Your task to perform on an android device: change the clock style Image 0: 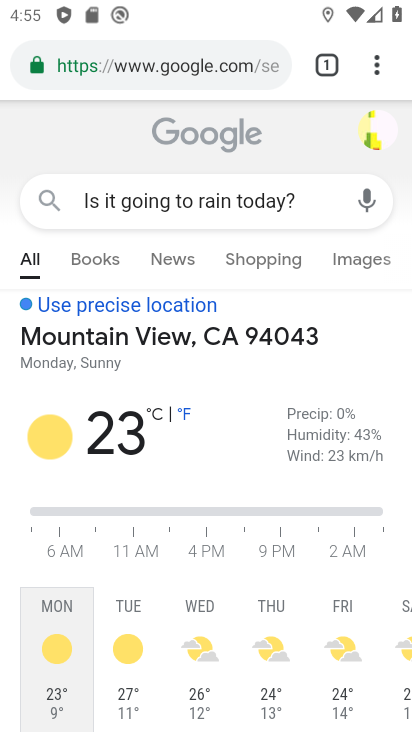
Step 0: press home button
Your task to perform on an android device: change the clock style Image 1: 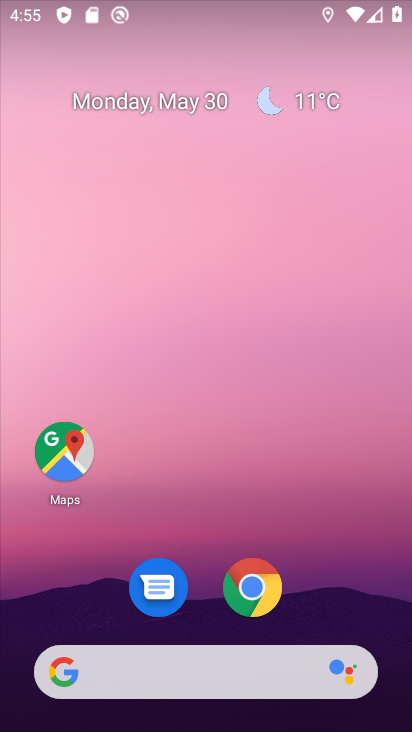
Step 1: drag from (331, 588) to (209, 27)
Your task to perform on an android device: change the clock style Image 2: 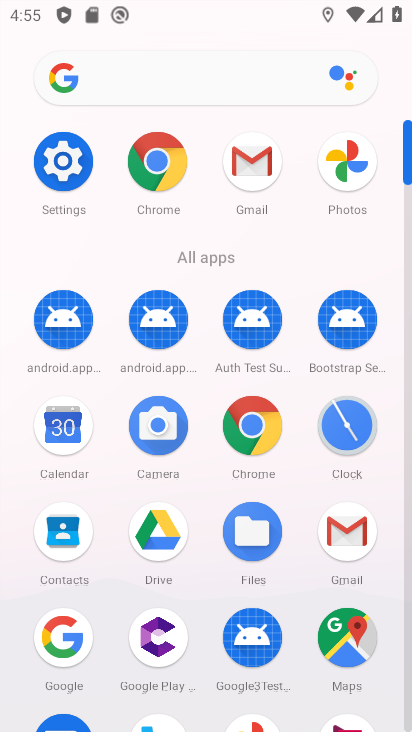
Step 2: drag from (26, 567) to (15, 235)
Your task to perform on an android device: change the clock style Image 3: 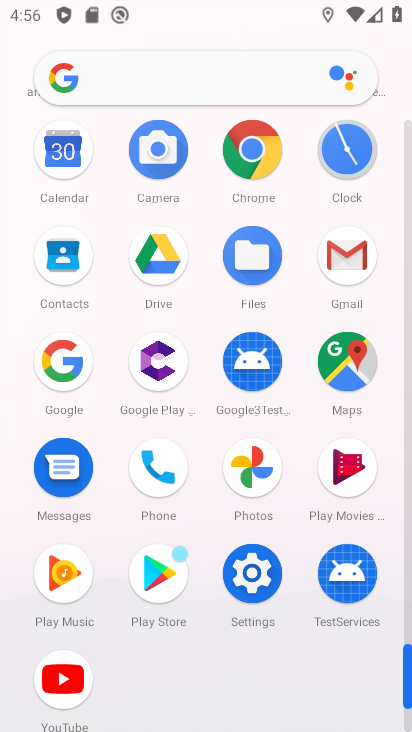
Step 3: click (346, 152)
Your task to perform on an android device: change the clock style Image 4: 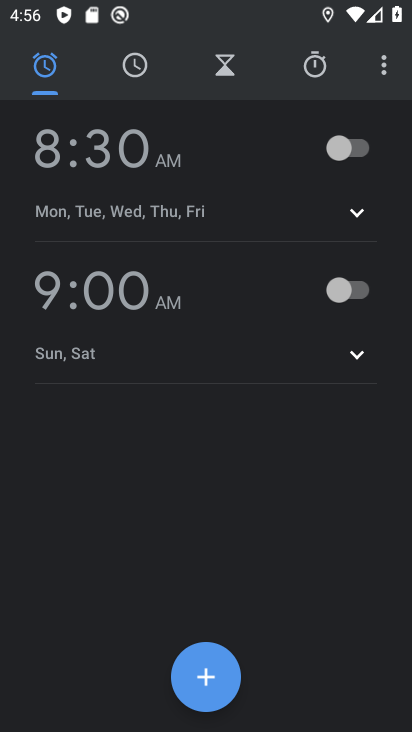
Step 4: drag from (379, 52) to (318, 116)
Your task to perform on an android device: change the clock style Image 5: 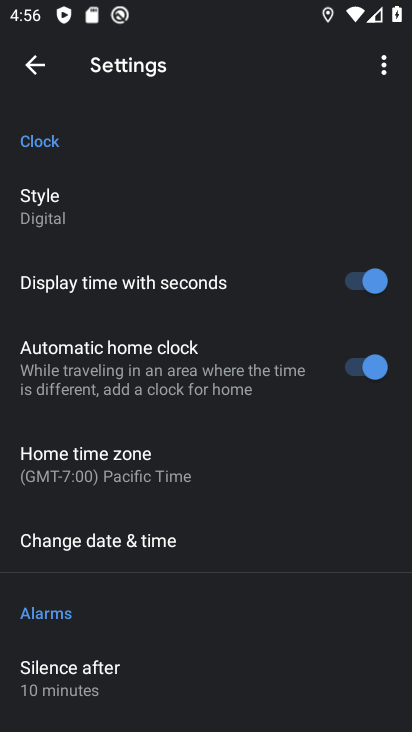
Step 5: click (58, 211)
Your task to perform on an android device: change the clock style Image 6: 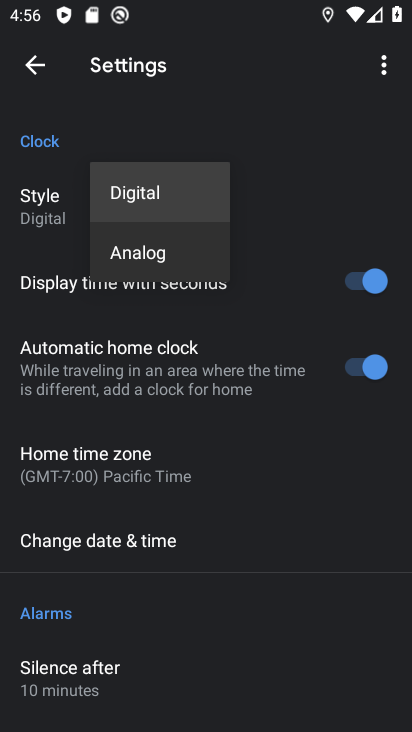
Step 6: click (153, 239)
Your task to perform on an android device: change the clock style Image 7: 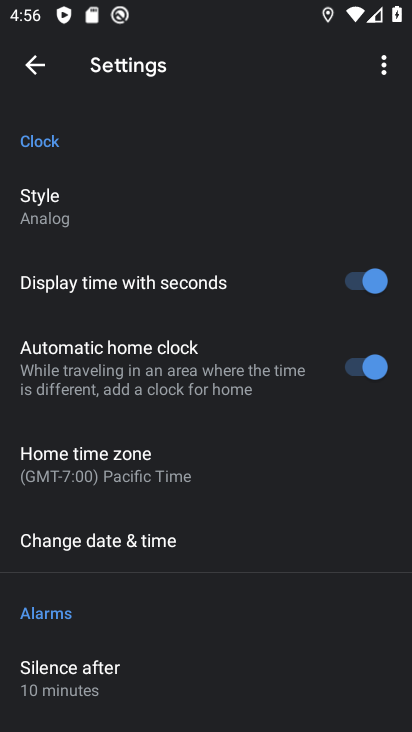
Step 7: task complete